Your task to perform on an android device: What's the weather going to be tomorrow? Image 0: 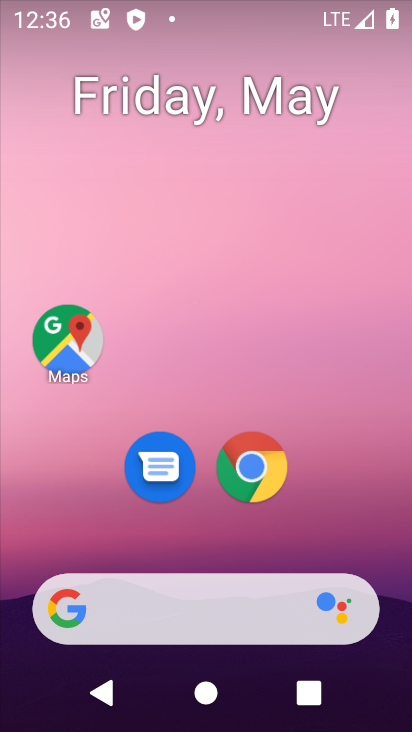
Step 0: drag from (337, 532) to (220, 148)
Your task to perform on an android device: What's the weather going to be tomorrow? Image 1: 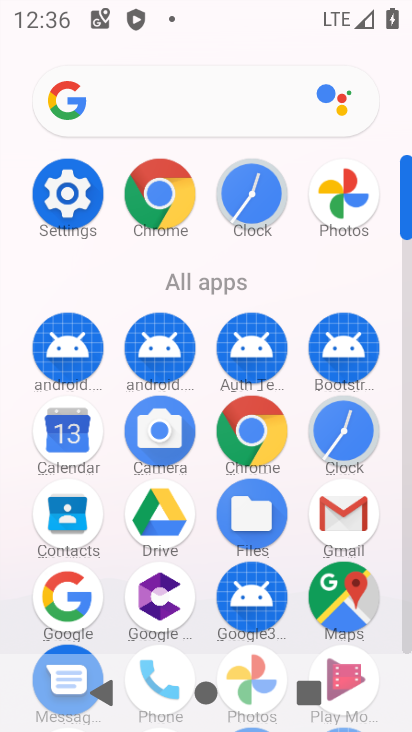
Step 1: click (61, 597)
Your task to perform on an android device: What's the weather going to be tomorrow? Image 2: 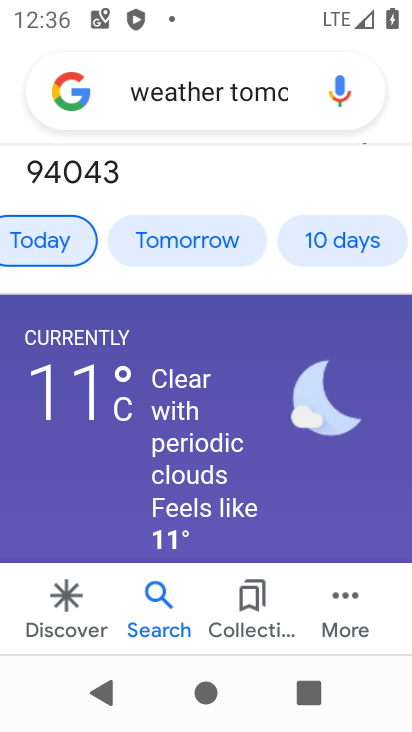
Step 2: click (184, 246)
Your task to perform on an android device: What's the weather going to be tomorrow? Image 3: 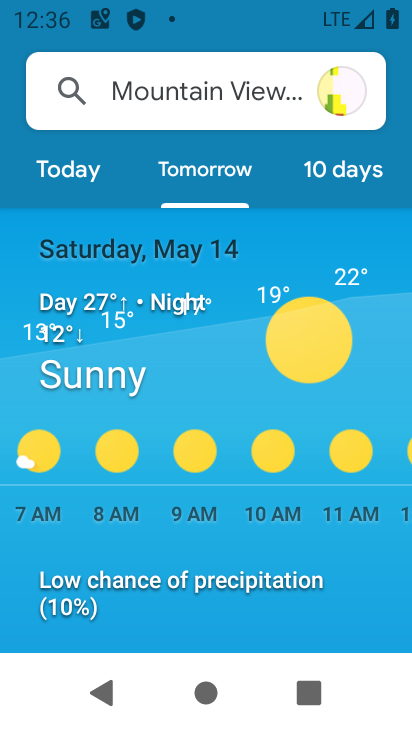
Step 3: task complete